Your task to perform on an android device: Go to wifi settings Image 0: 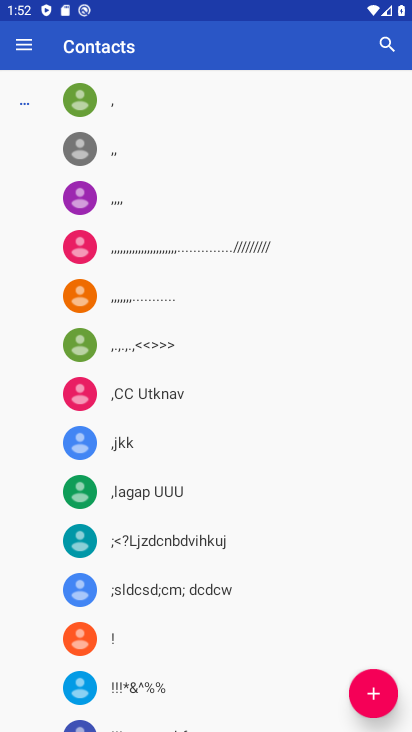
Step 0: press home button
Your task to perform on an android device: Go to wifi settings Image 1: 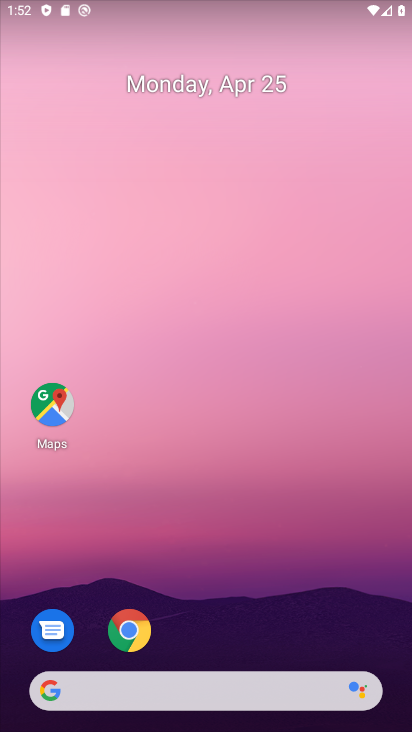
Step 1: drag from (238, 18) to (286, 650)
Your task to perform on an android device: Go to wifi settings Image 2: 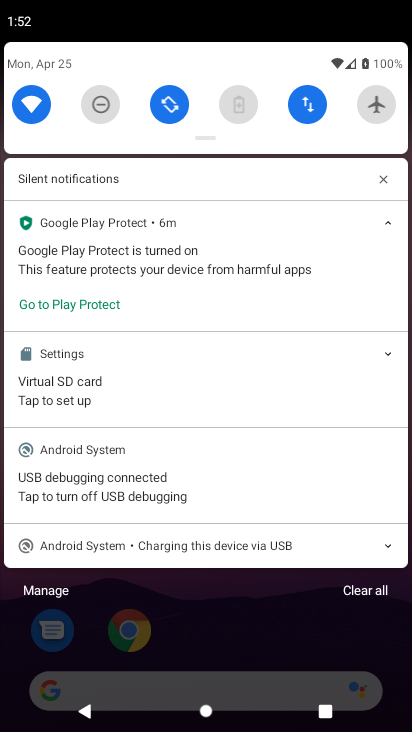
Step 2: click (40, 97)
Your task to perform on an android device: Go to wifi settings Image 3: 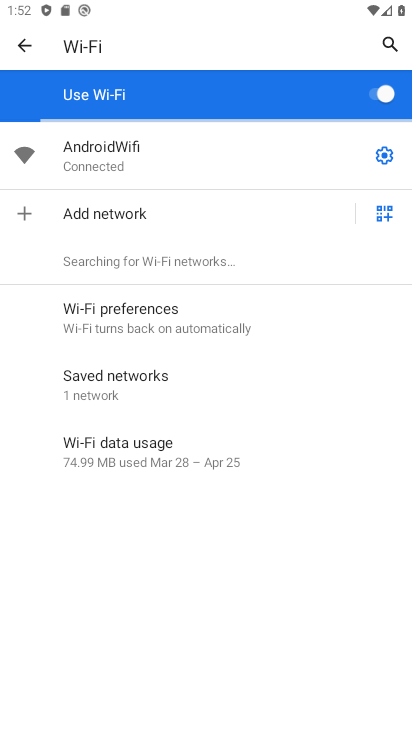
Step 3: task complete